Your task to perform on an android device: turn on improve location accuracy Image 0: 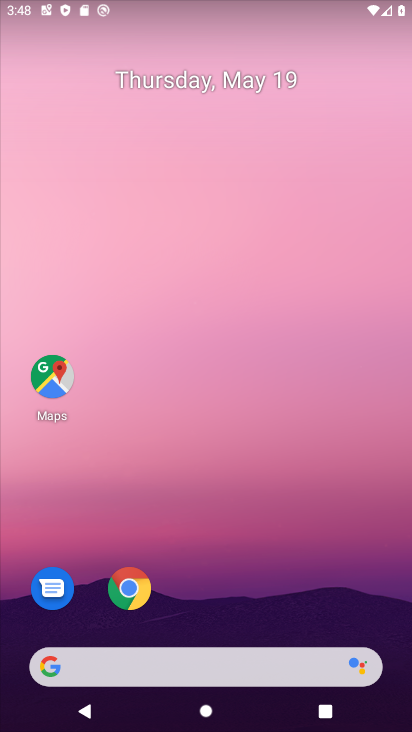
Step 0: drag from (194, 631) to (333, 208)
Your task to perform on an android device: turn on improve location accuracy Image 1: 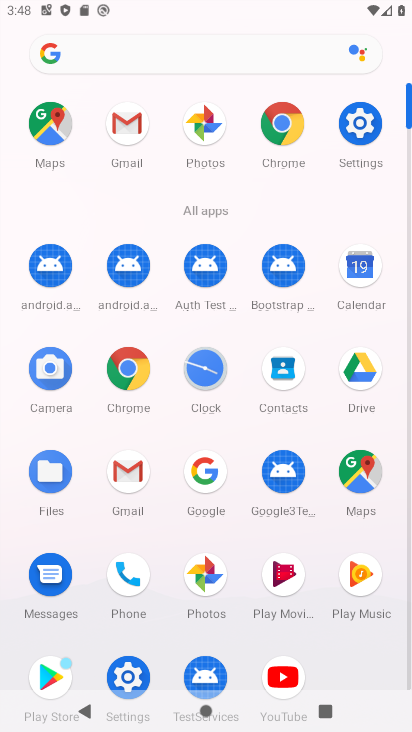
Step 1: click (367, 121)
Your task to perform on an android device: turn on improve location accuracy Image 2: 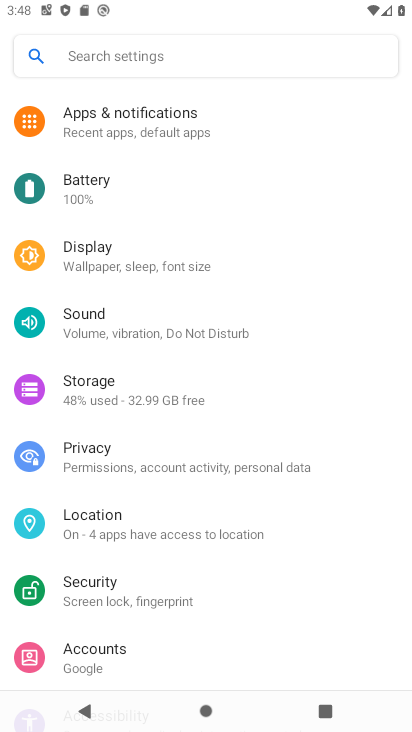
Step 2: click (131, 506)
Your task to perform on an android device: turn on improve location accuracy Image 3: 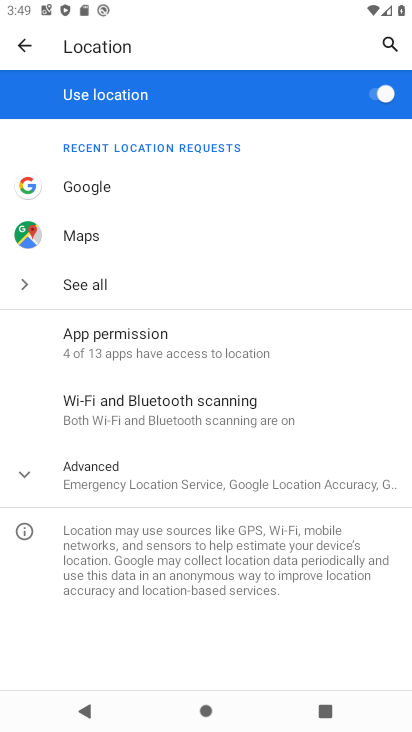
Step 3: click (142, 483)
Your task to perform on an android device: turn on improve location accuracy Image 4: 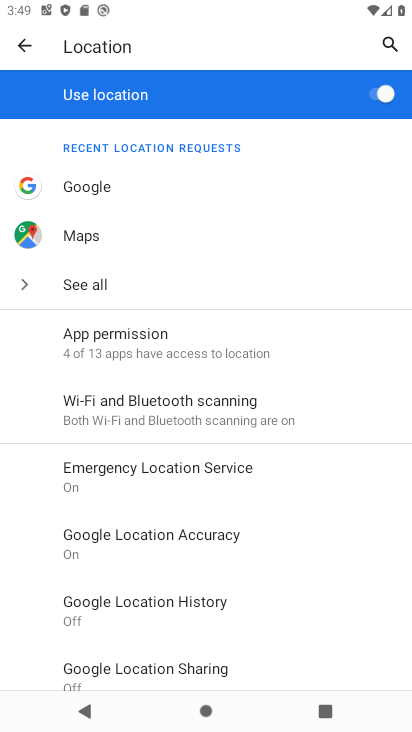
Step 4: click (155, 539)
Your task to perform on an android device: turn on improve location accuracy Image 5: 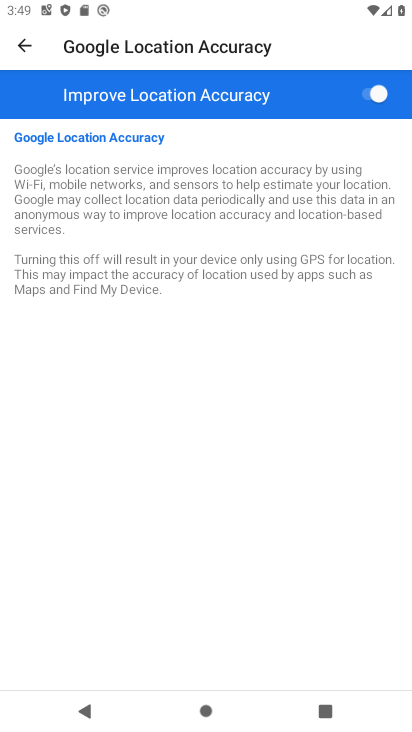
Step 5: task complete